Your task to perform on an android device: find which apps use the phone's location Image 0: 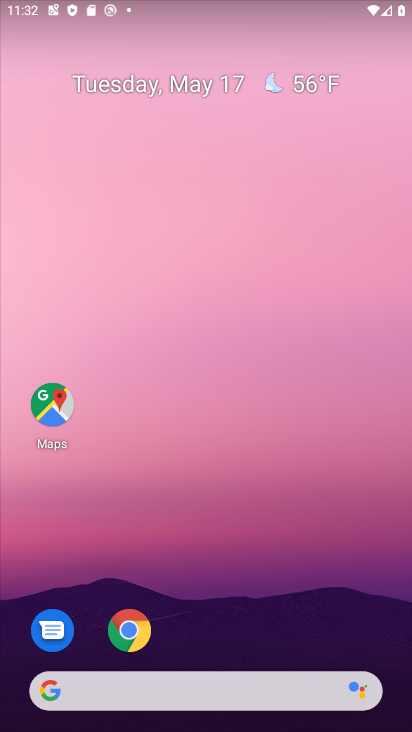
Step 0: drag from (360, 630) to (330, 215)
Your task to perform on an android device: find which apps use the phone's location Image 1: 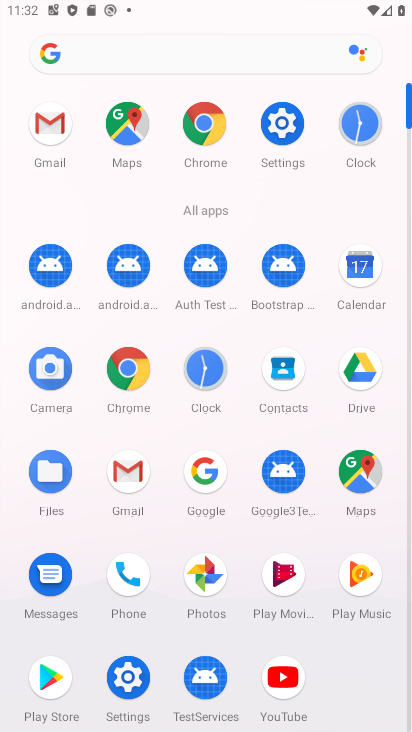
Step 1: click (132, 692)
Your task to perform on an android device: find which apps use the phone's location Image 2: 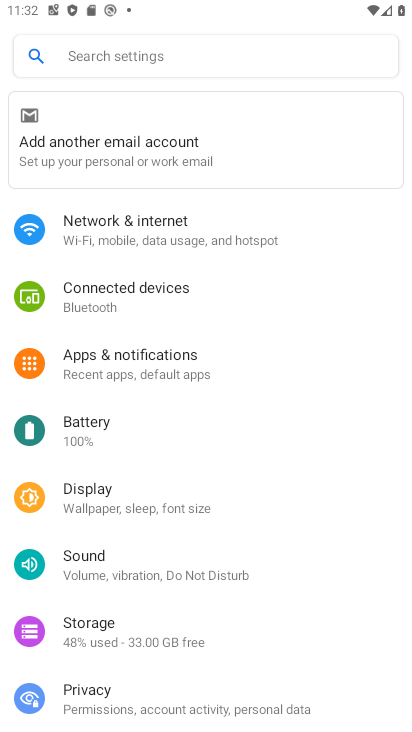
Step 2: drag from (174, 618) to (152, 401)
Your task to perform on an android device: find which apps use the phone's location Image 3: 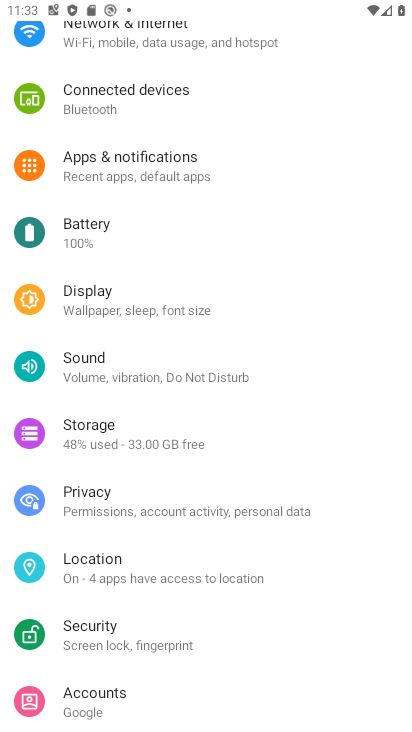
Step 3: click (133, 562)
Your task to perform on an android device: find which apps use the phone's location Image 4: 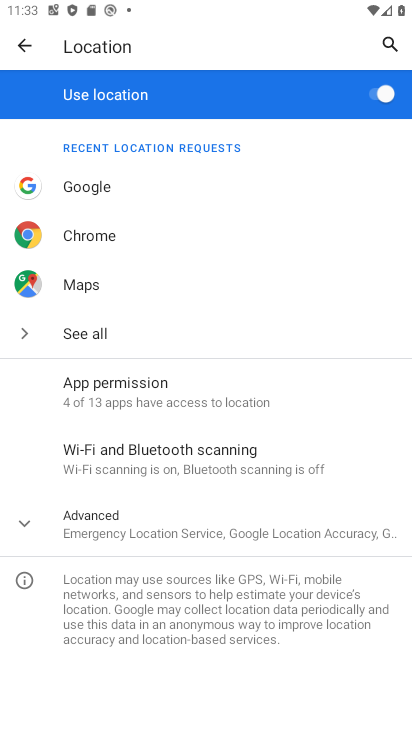
Step 4: task complete